Your task to perform on an android device: turn on javascript in the chrome app Image 0: 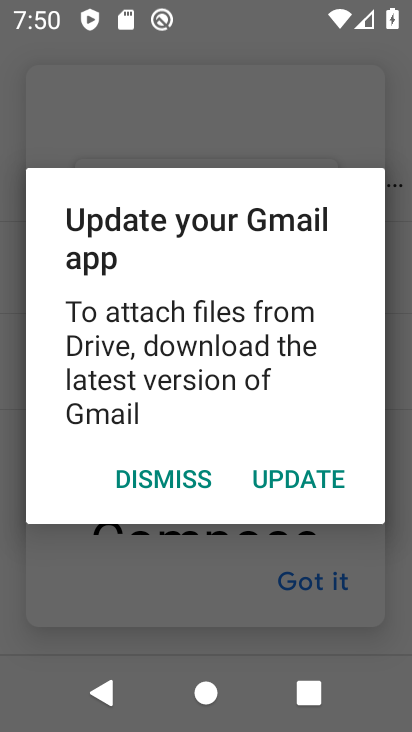
Step 0: press home button
Your task to perform on an android device: turn on javascript in the chrome app Image 1: 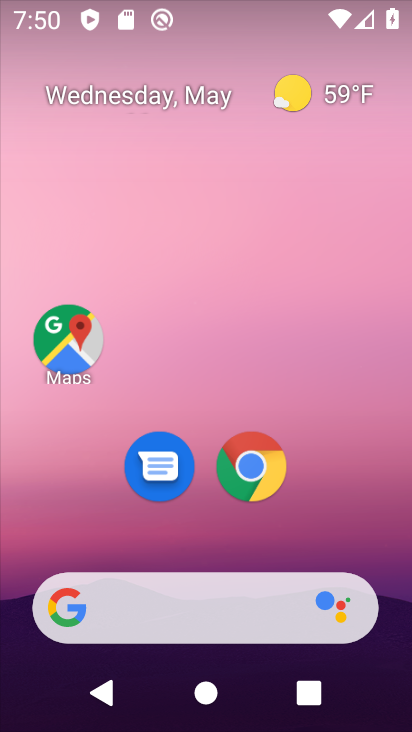
Step 1: drag from (317, 384) to (323, 203)
Your task to perform on an android device: turn on javascript in the chrome app Image 2: 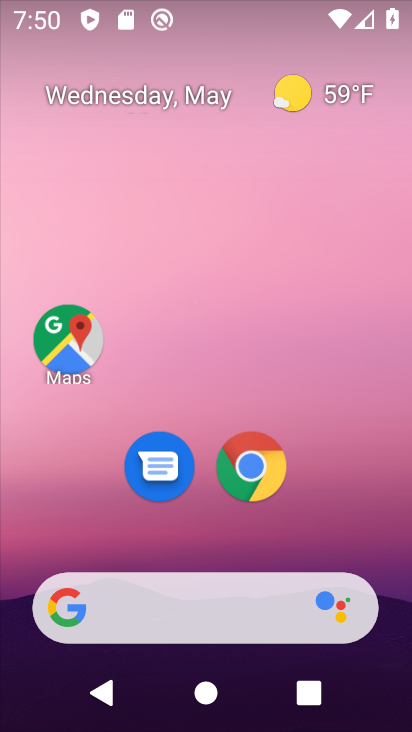
Step 2: drag from (295, 509) to (309, 118)
Your task to perform on an android device: turn on javascript in the chrome app Image 3: 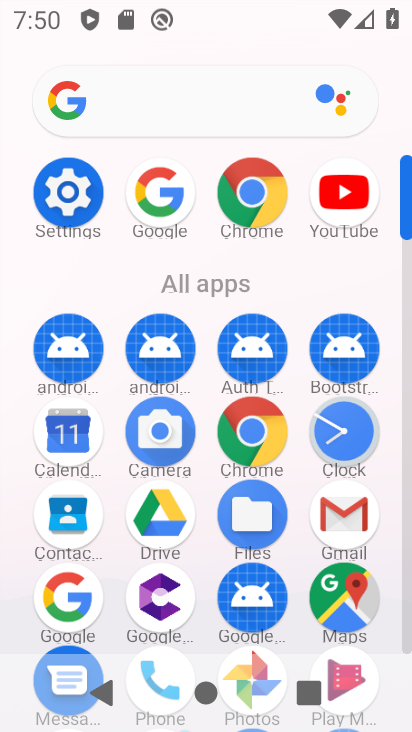
Step 3: click (263, 198)
Your task to perform on an android device: turn on javascript in the chrome app Image 4: 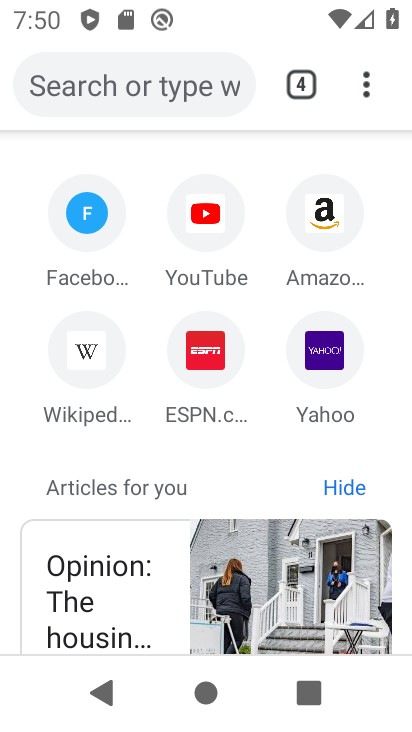
Step 4: click (356, 73)
Your task to perform on an android device: turn on javascript in the chrome app Image 5: 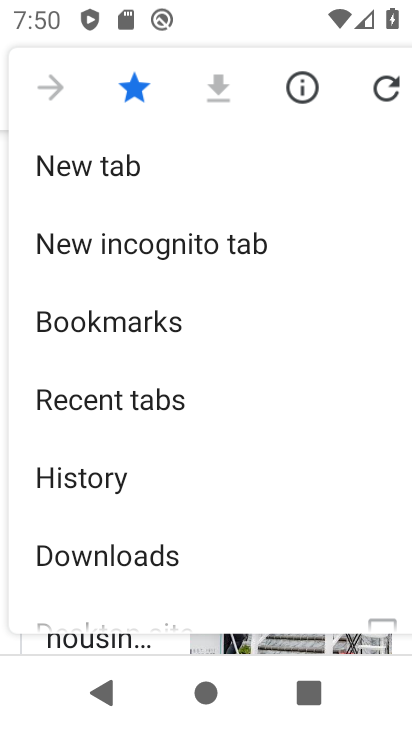
Step 5: drag from (210, 557) to (256, 205)
Your task to perform on an android device: turn on javascript in the chrome app Image 6: 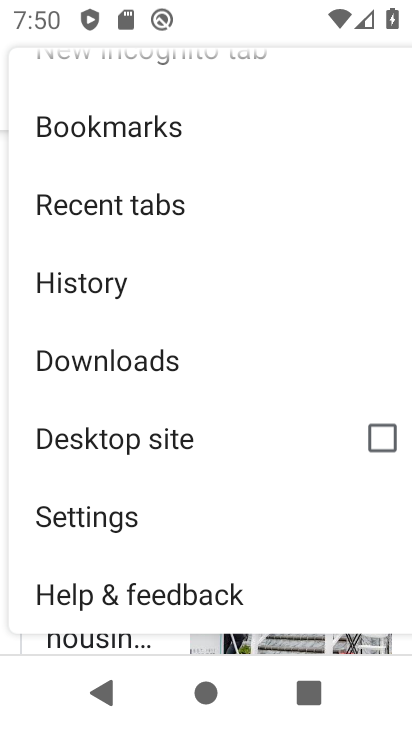
Step 6: click (105, 523)
Your task to perform on an android device: turn on javascript in the chrome app Image 7: 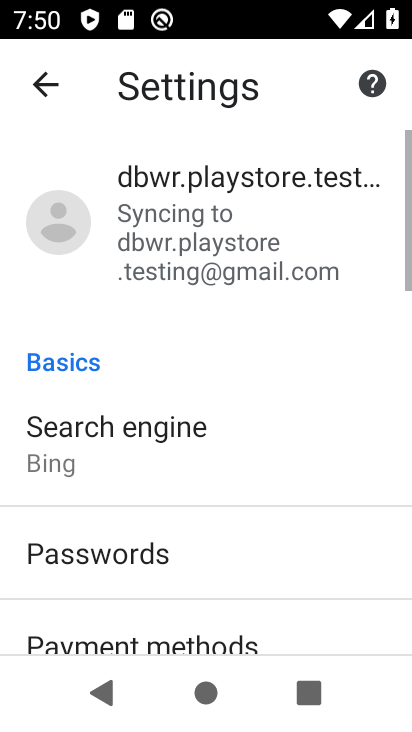
Step 7: drag from (254, 611) to (284, 223)
Your task to perform on an android device: turn on javascript in the chrome app Image 8: 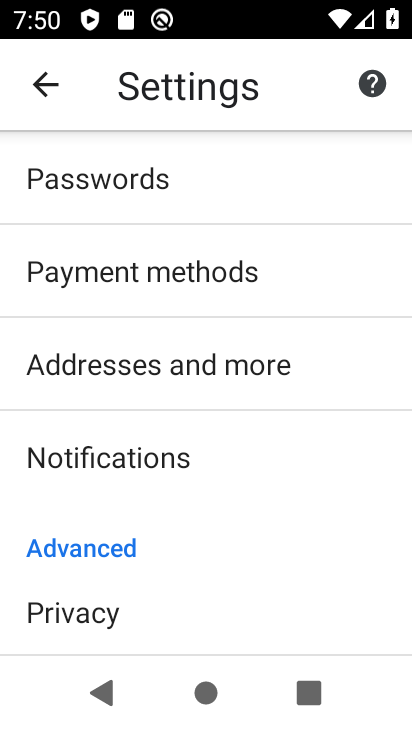
Step 8: drag from (217, 561) to (257, 173)
Your task to perform on an android device: turn on javascript in the chrome app Image 9: 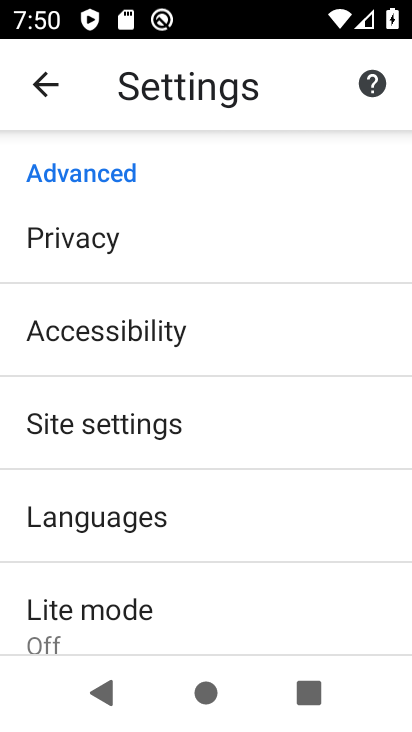
Step 9: drag from (185, 608) to (224, 434)
Your task to perform on an android device: turn on javascript in the chrome app Image 10: 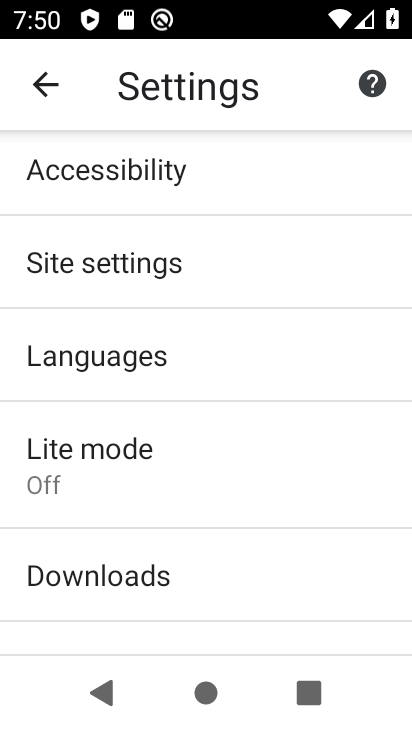
Step 10: click (164, 267)
Your task to perform on an android device: turn on javascript in the chrome app Image 11: 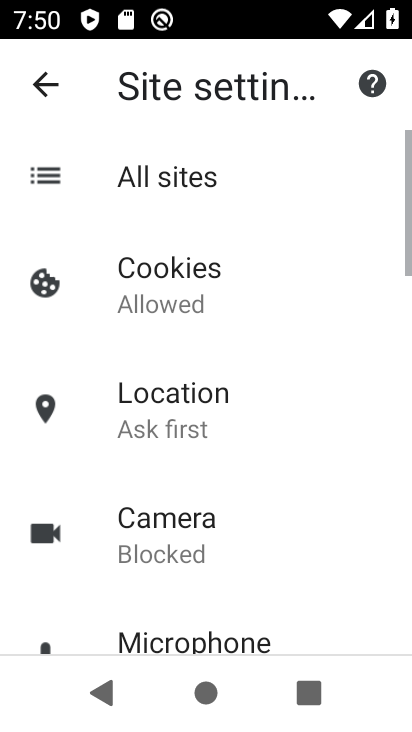
Step 11: drag from (258, 614) to (302, 275)
Your task to perform on an android device: turn on javascript in the chrome app Image 12: 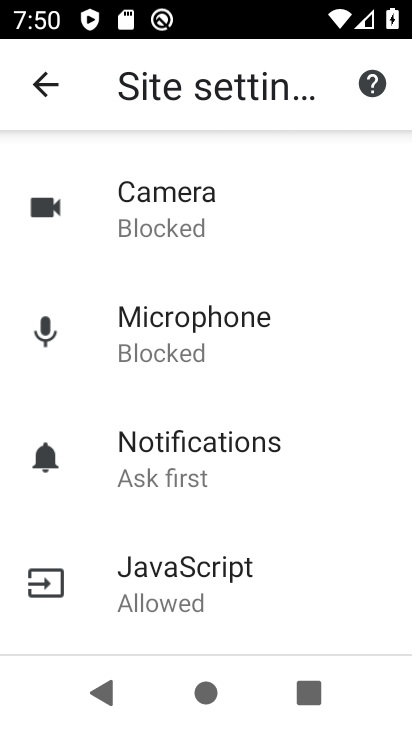
Step 12: click (240, 589)
Your task to perform on an android device: turn on javascript in the chrome app Image 13: 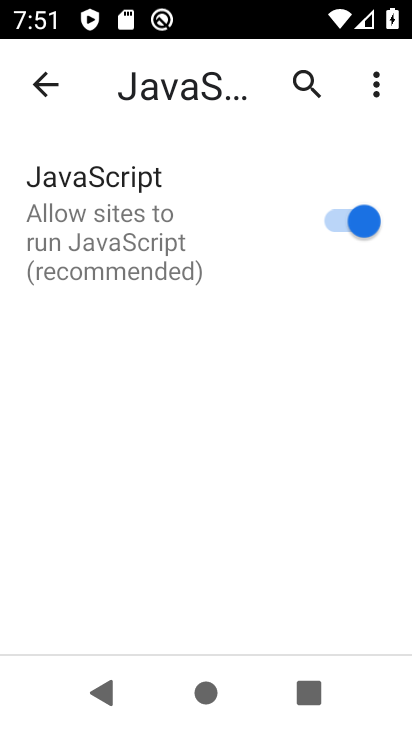
Step 13: task complete